Your task to perform on an android device: Go to Yahoo.com Image 0: 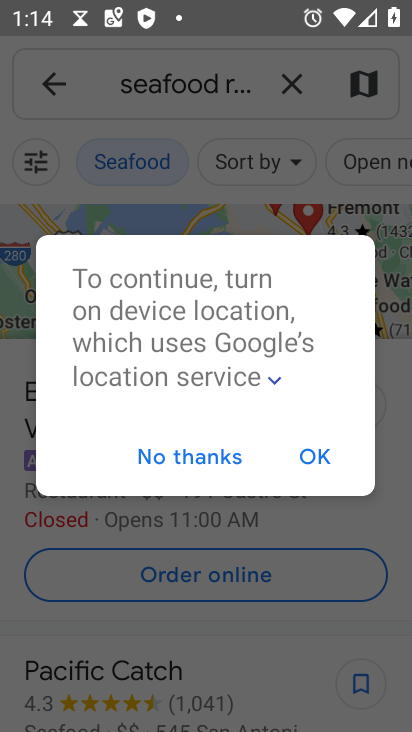
Step 0: press home button
Your task to perform on an android device: Go to Yahoo.com Image 1: 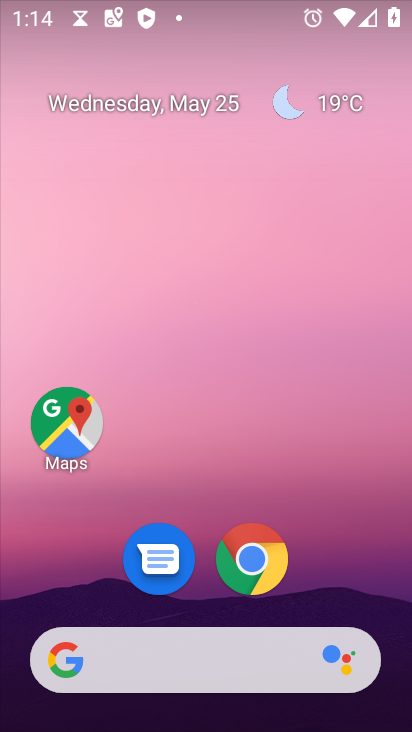
Step 1: click (410, 479)
Your task to perform on an android device: Go to Yahoo.com Image 2: 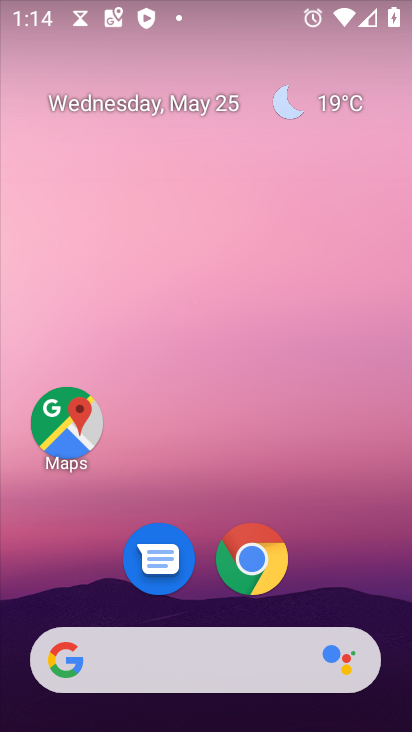
Step 2: click (249, 574)
Your task to perform on an android device: Go to Yahoo.com Image 3: 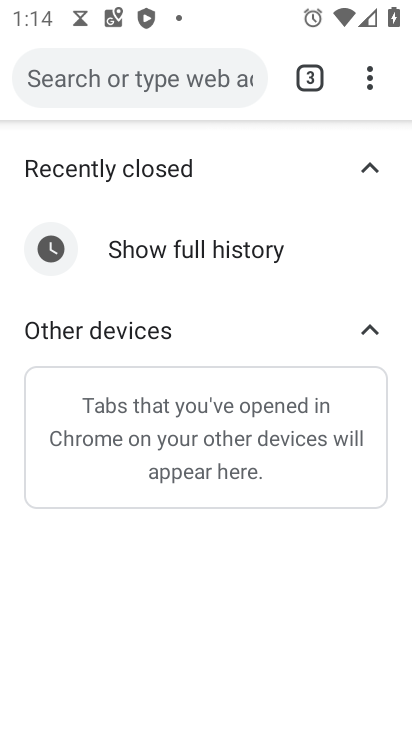
Step 3: click (180, 76)
Your task to perform on an android device: Go to Yahoo.com Image 4: 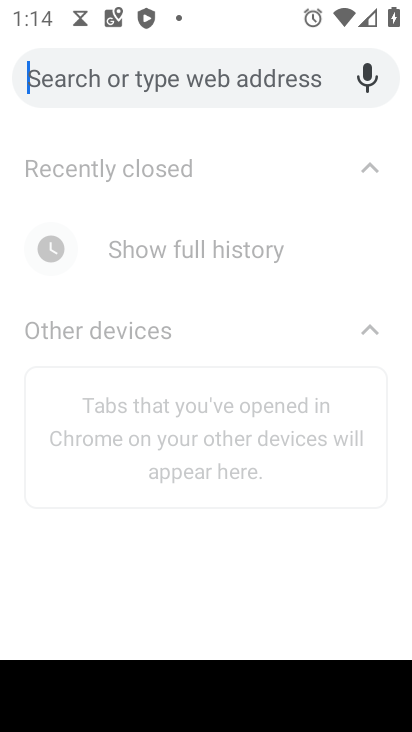
Step 4: type "yahoo"
Your task to perform on an android device: Go to Yahoo.com Image 5: 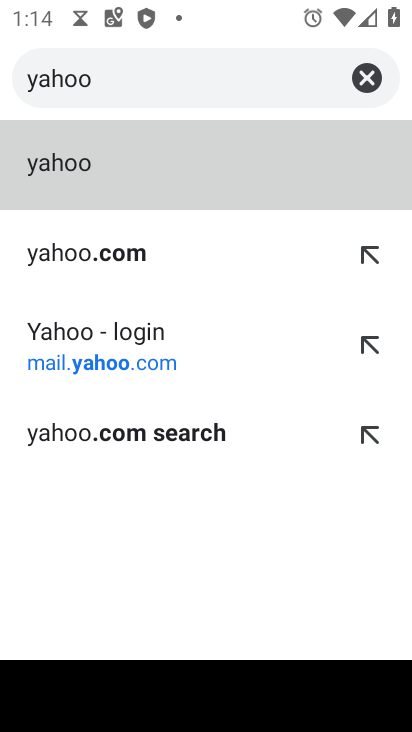
Step 5: click (103, 276)
Your task to perform on an android device: Go to Yahoo.com Image 6: 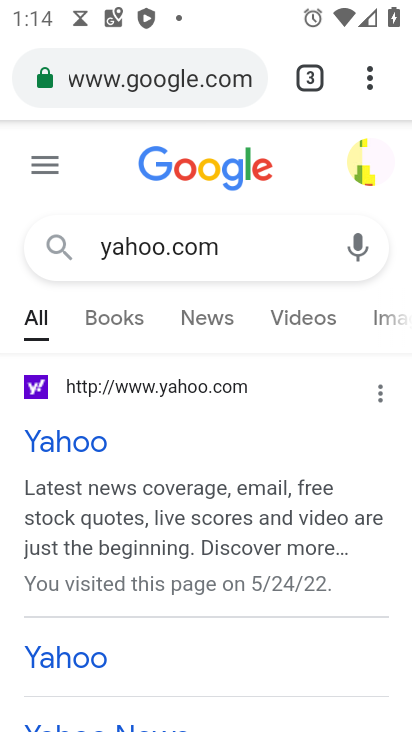
Step 6: click (75, 457)
Your task to perform on an android device: Go to Yahoo.com Image 7: 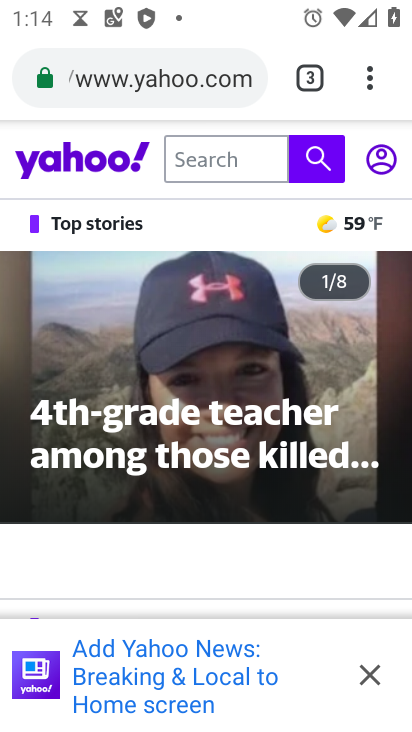
Step 7: task complete